Your task to perform on an android device: turn on the 24-hour format for clock Image 0: 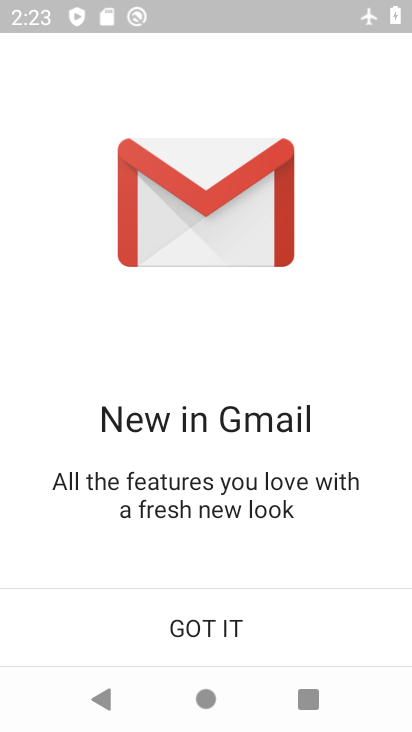
Step 0: press home button
Your task to perform on an android device: turn on the 24-hour format for clock Image 1: 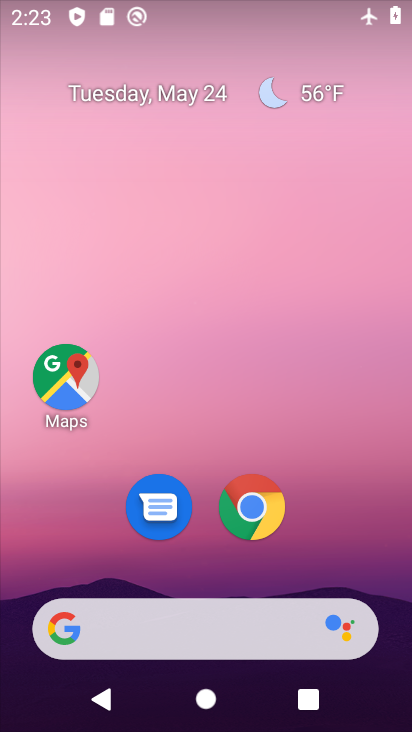
Step 1: drag from (101, 611) to (216, 115)
Your task to perform on an android device: turn on the 24-hour format for clock Image 2: 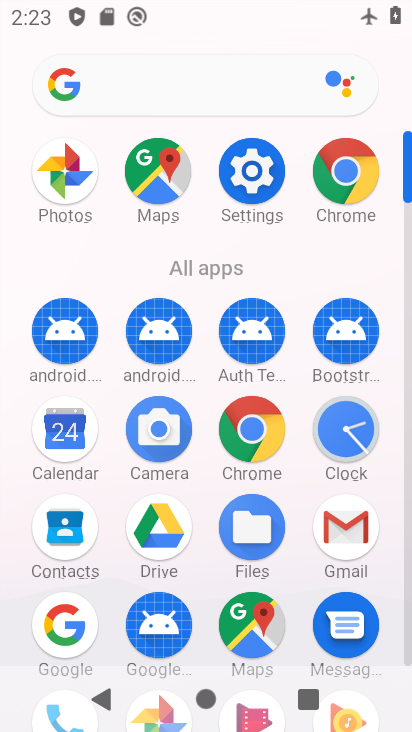
Step 2: click (349, 437)
Your task to perform on an android device: turn on the 24-hour format for clock Image 3: 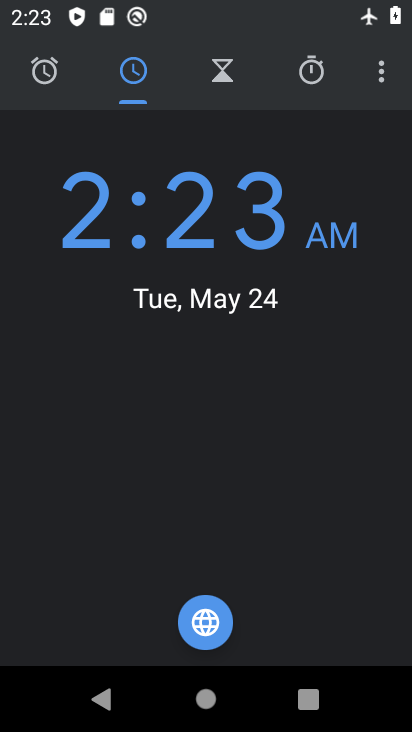
Step 3: click (383, 65)
Your task to perform on an android device: turn on the 24-hour format for clock Image 4: 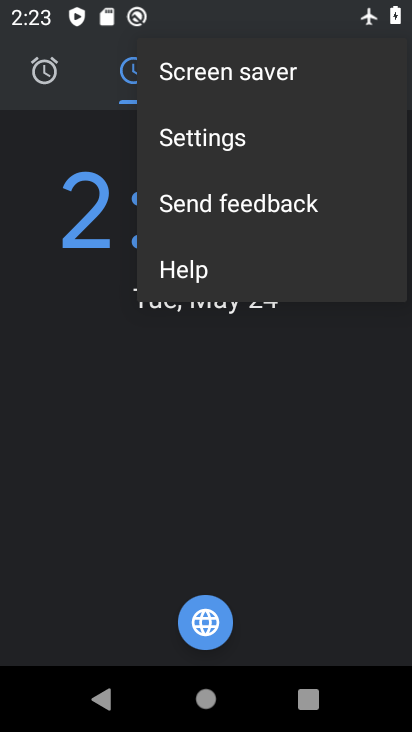
Step 4: click (312, 129)
Your task to perform on an android device: turn on the 24-hour format for clock Image 5: 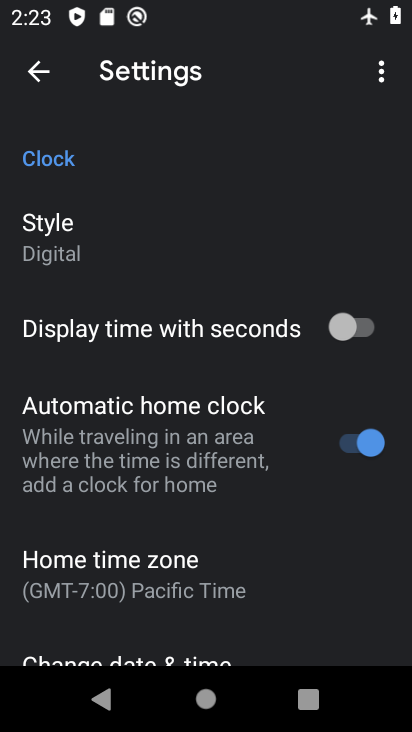
Step 5: drag from (196, 595) to (345, 150)
Your task to perform on an android device: turn on the 24-hour format for clock Image 6: 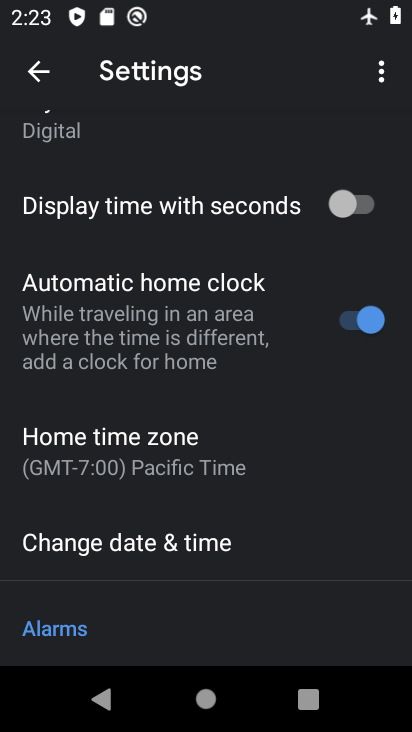
Step 6: click (231, 552)
Your task to perform on an android device: turn on the 24-hour format for clock Image 7: 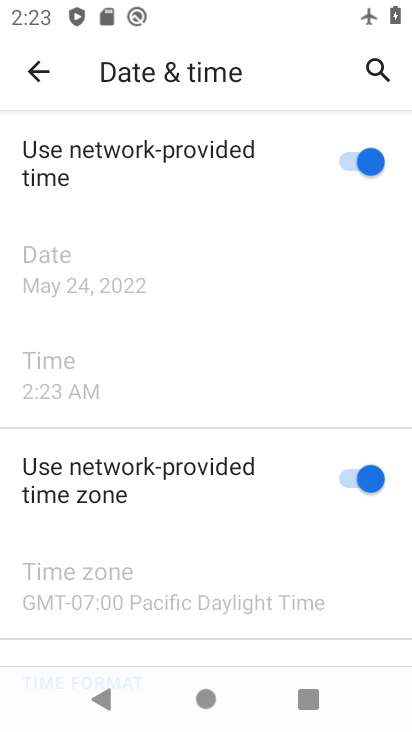
Step 7: drag from (131, 652) to (256, 171)
Your task to perform on an android device: turn on the 24-hour format for clock Image 8: 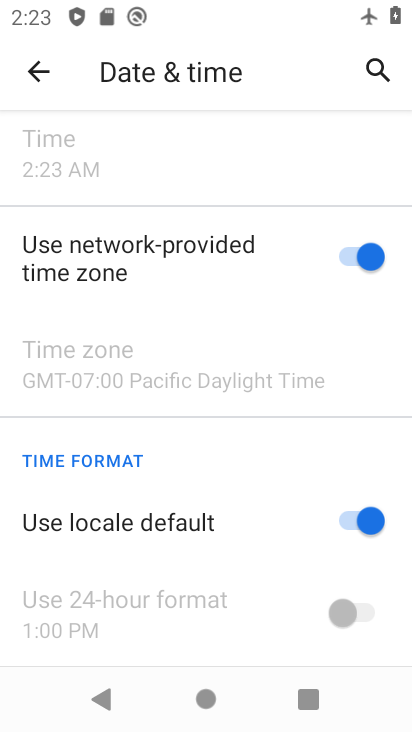
Step 8: click (350, 525)
Your task to perform on an android device: turn on the 24-hour format for clock Image 9: 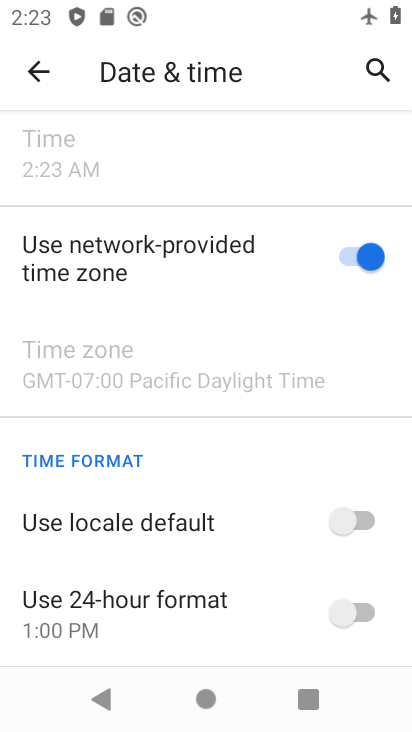
Step 9: click (378, 613)
Your task to perform on an android device: turn on the 24-hour format for clock Image 10: 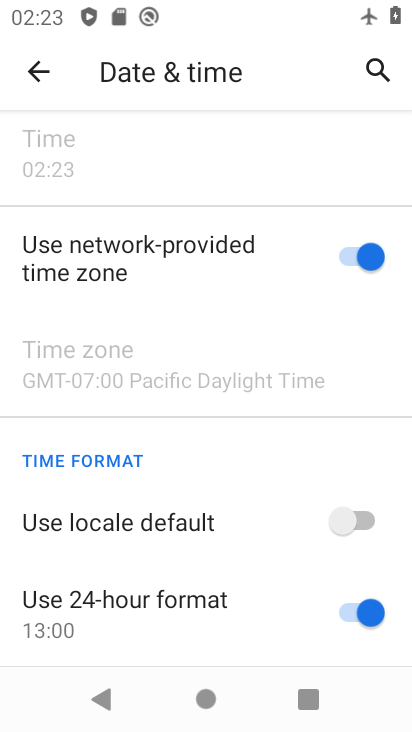
Step 10: task complete